Your task to perform on an android device: Open settings on Google Maps Image 0: 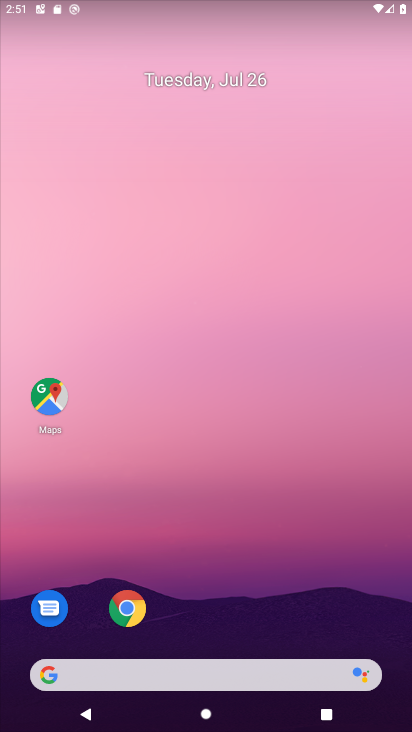
Step 0: drag from (270, 605) to (240, 198)
Your task to perform on an android device: Open settings on Google Maps Image 1: 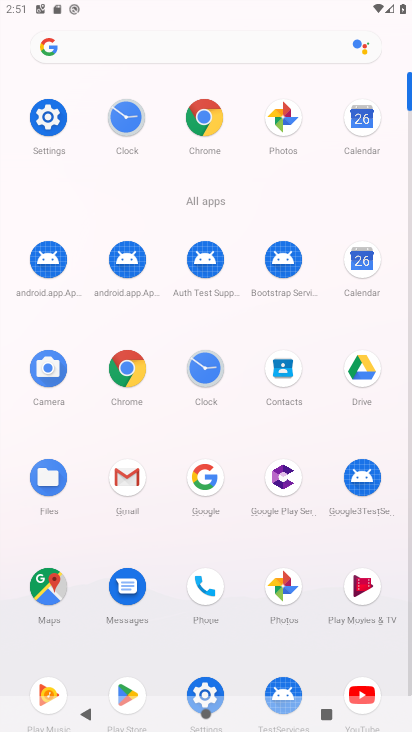
Step 1: click (58, 576)
Your task to perform on an android device: Open settings on Google Maps Image 2: 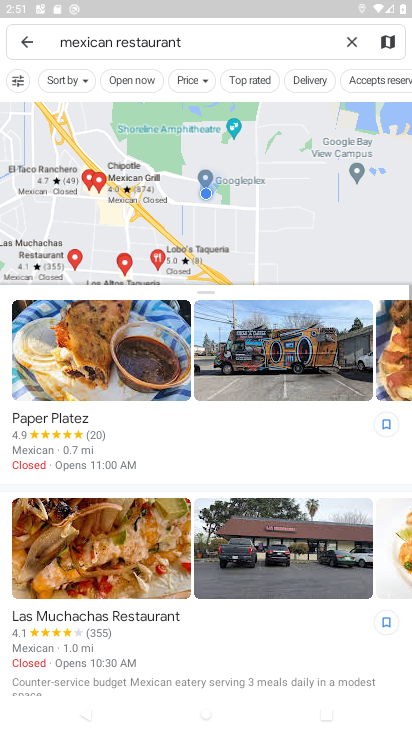
Step 2: click (23, 45)
Your task to perform on an android device: Open settings on Google Maps Image 3: 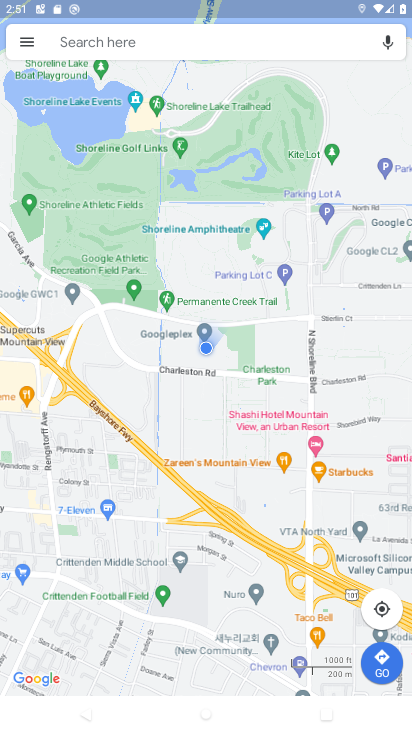
Step 3: click (23, 45)
Your task to perform on an android device: Open settings on Google Maps Image 4: 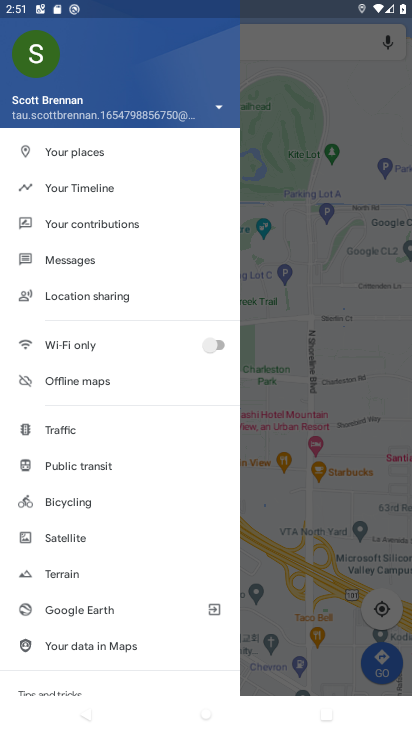
Step 4: drag from (94, 614) to (76, 462)
Your task to perform on an android device: Open settings on Google Maps Image 5: 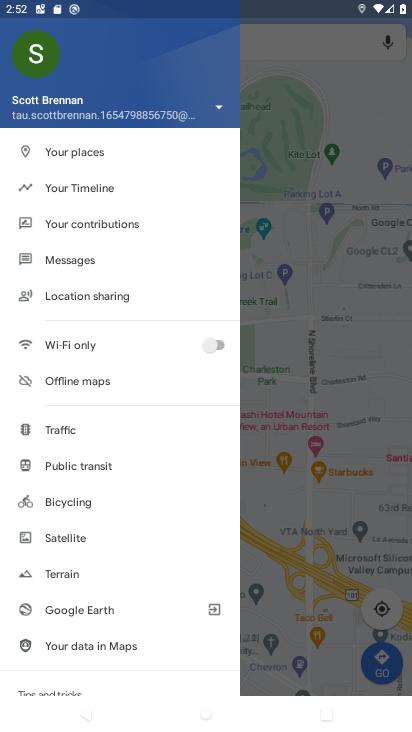
Step 5: drag from (110, 533) to (106, 230)
Your task to perform on an android device: Open settings on Google Maps Image 6: 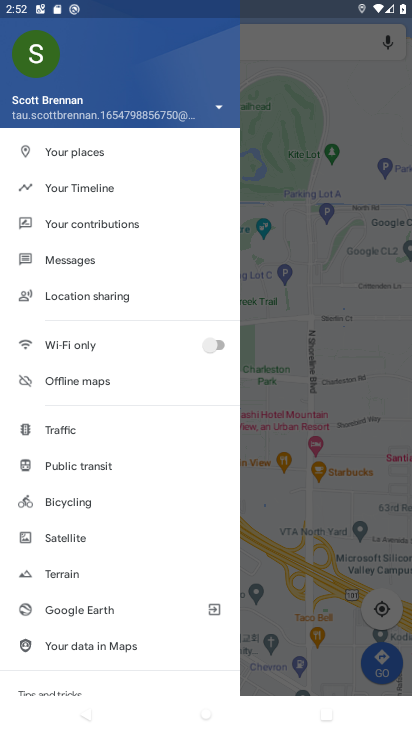
Step 6: drag from (125, 613) to (118, 311)
Your task to perform on an android device: Open settings on Google Maps Image 7: 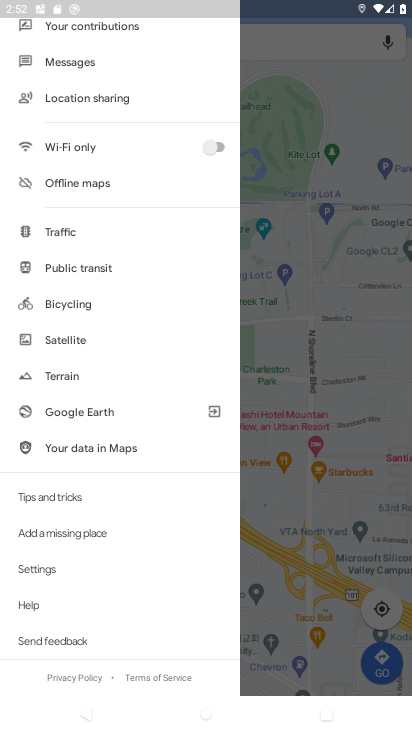
Step 7: click (34, 568)
Your task to perform on an android device: Open settings on Google Maps Image 8: 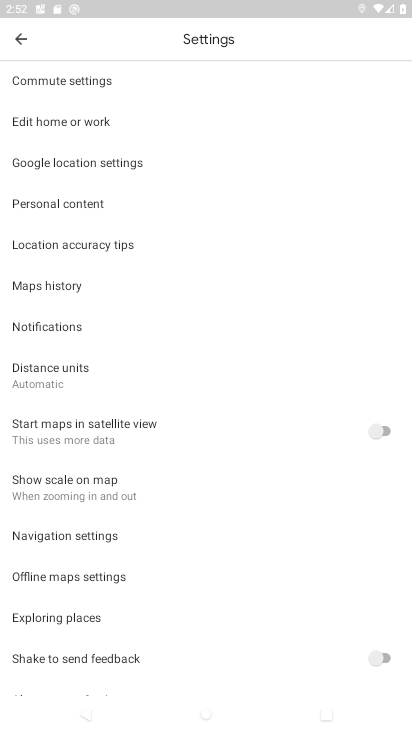
Step 8: task complete